Your task to perform on an android device: Open internet settings Image 0: 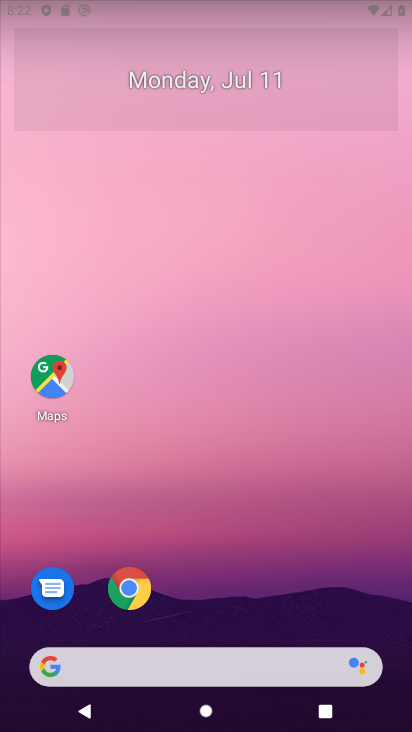
Step 0: drag from (271, 713) to (401, 324)
Your task to perform on an android device: Open internet settings Image 1: 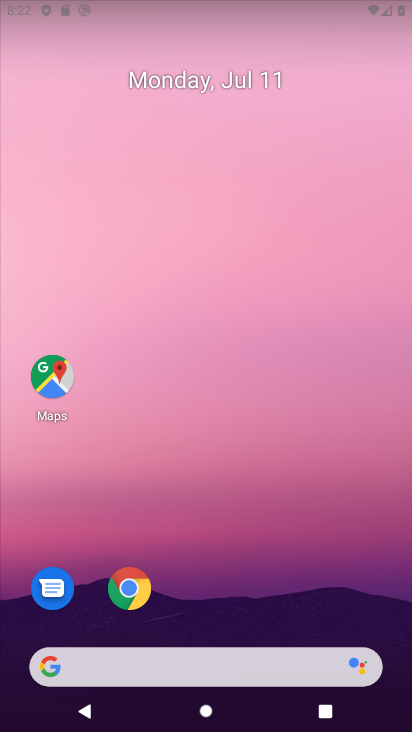
Step 1: drag from (259, 714) to (119, 8)
Your task to perform on an android device: Open internet settings Image 2: 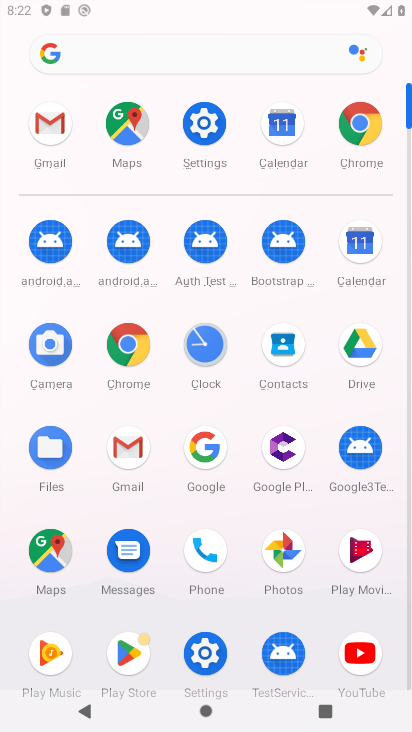
Step 2: click (214, 127)
Your task to perform on an android device: Open internet settings Image 3: 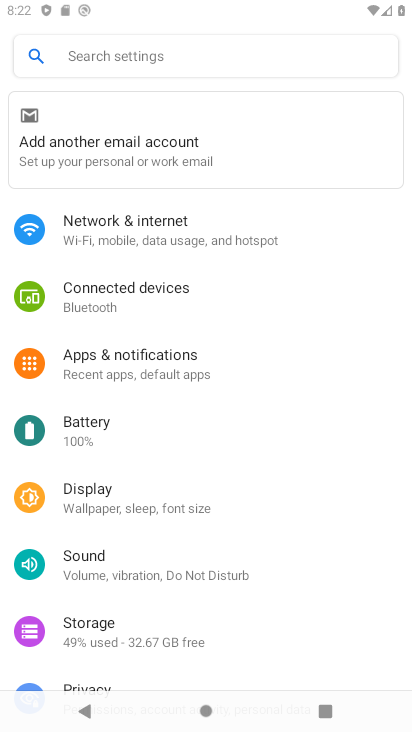
Step 3: click (228, 242)
Your task to perform on an android device: Open internet settings Image 4: 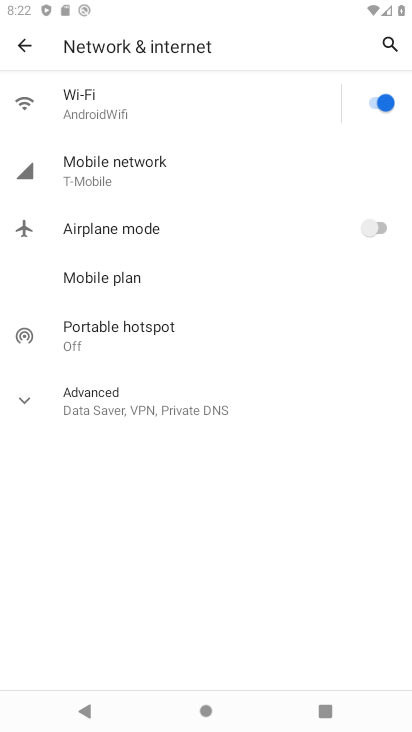
Step 4: task complete